Your task to perform on an android device: Open ESPN.com Image 0: 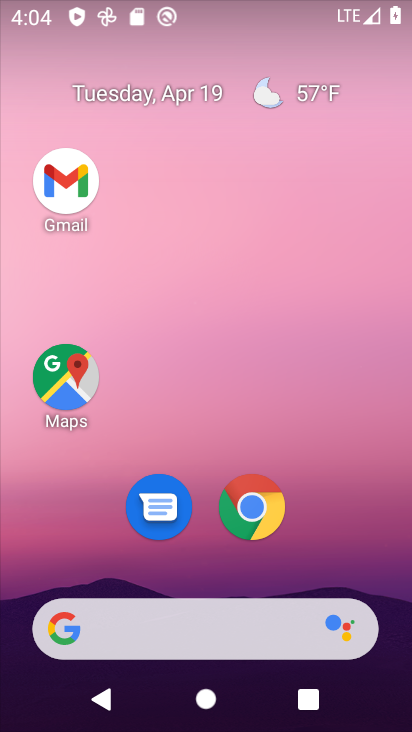
Step 0: click (250, 492)
Your task to perform on an android device: Open ESPN.com Image 1: 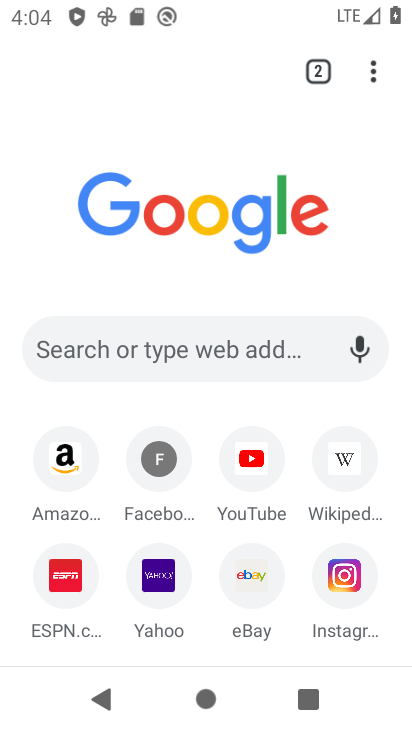
Step 1: click (47, 574)
Your task to perform on an android device: Open ESPN.com Image 2: 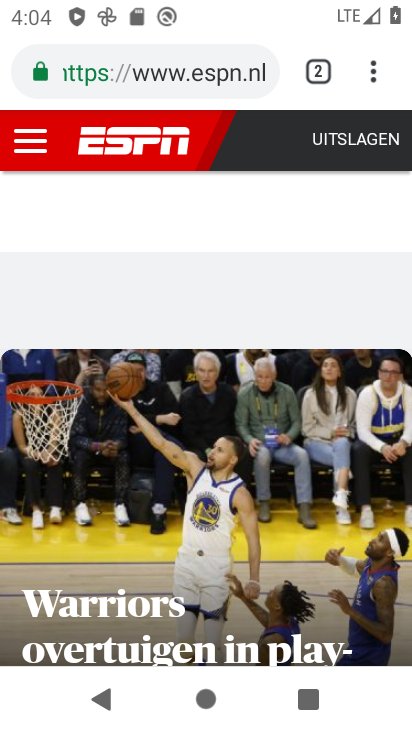
Step 2: task complete